Your task to perform on an android device: What's the weather today? Image 0: 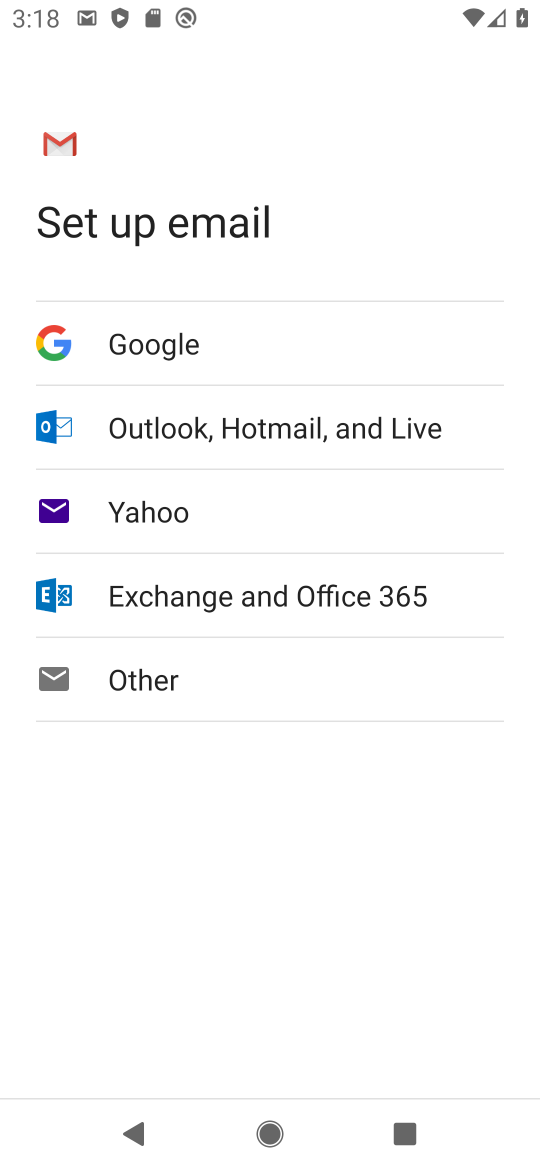
Step 0: press home button
Your task to perform on an android device: What's the weather today? Image 1: 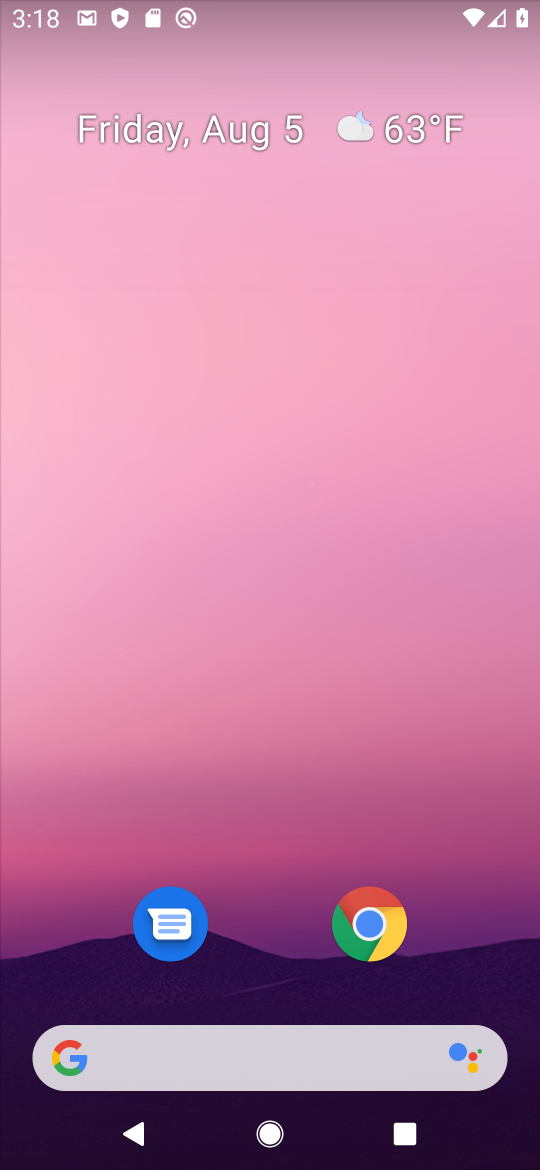
Step 1: drag from (328, 789) to (338, 128)
Your task to perform on an android device: What's the weather today? Image 2: 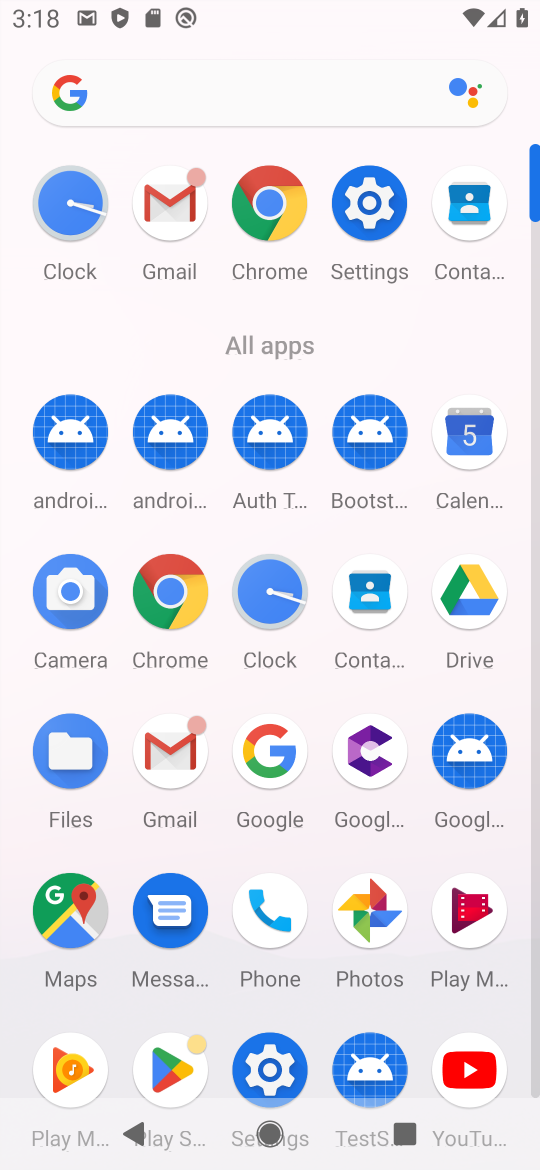
Step 2: click (177, 606)
Your task to perform on an android device: What's the weather today? Image 3: 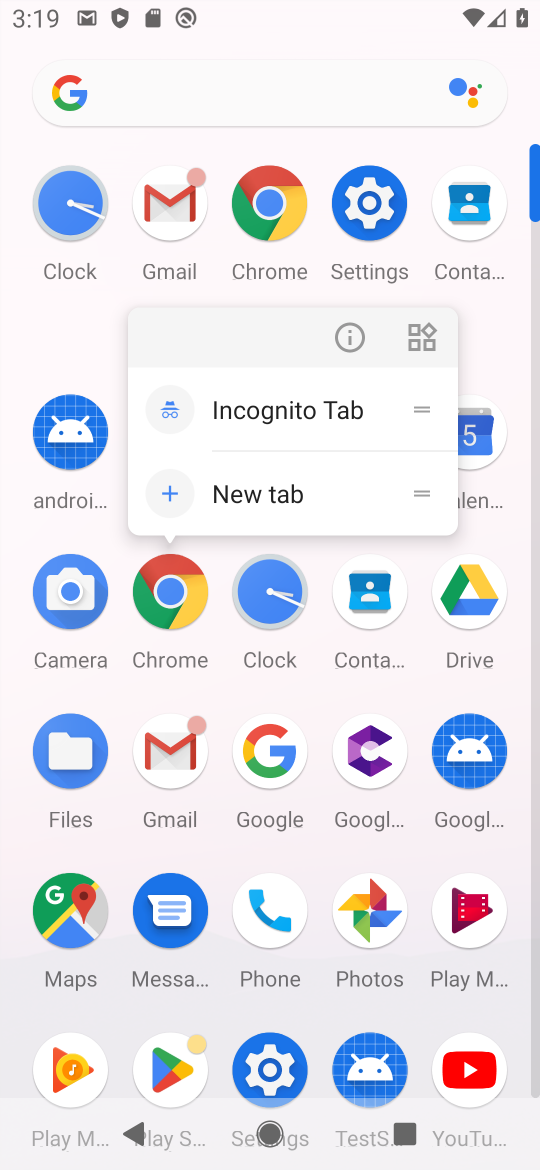
Step 3: click (191, 612)
Your task to perform on an android device: What's the weather today? Image 4: 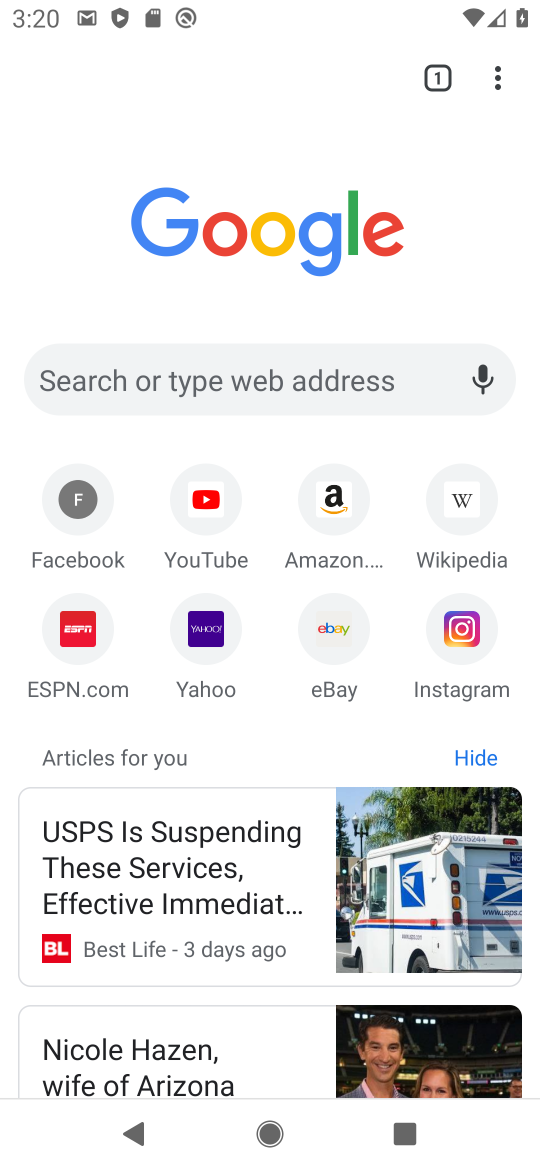
Step 4: click (275, 363)
Your task to perform on an android device: What's the weather today? Image 5: 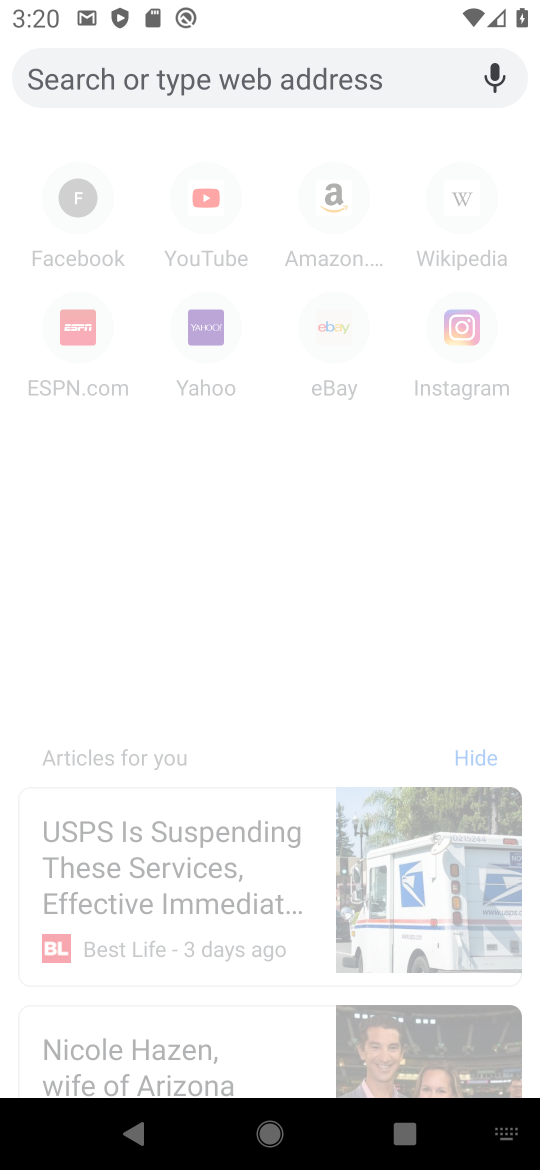
Step 5: type "weather today"
Your task to perform on an android device: What's the weather today? Image 6: 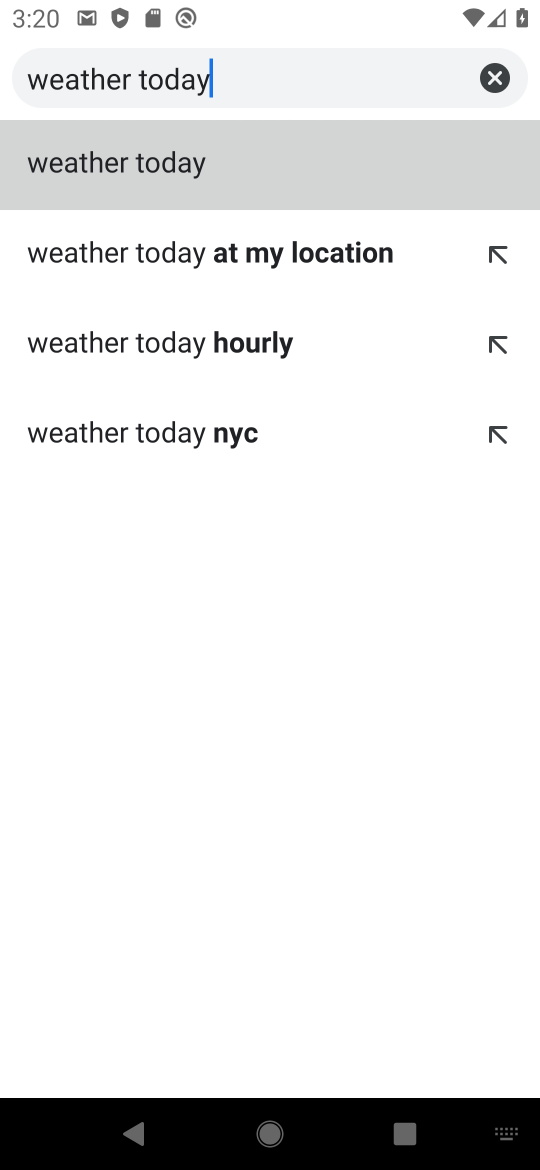
Step 6: type ""
Your task to perform on an android device: What's the weather today? Image 7: 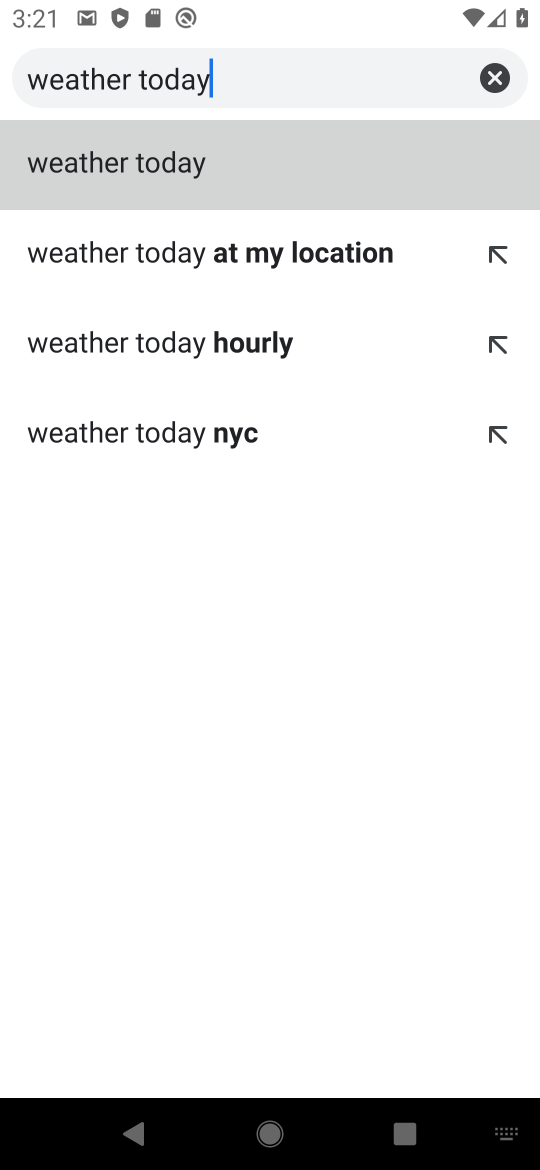
Step 7: click (219, 172)
Your task to perform on an android device: What's the weather today? Image 8: 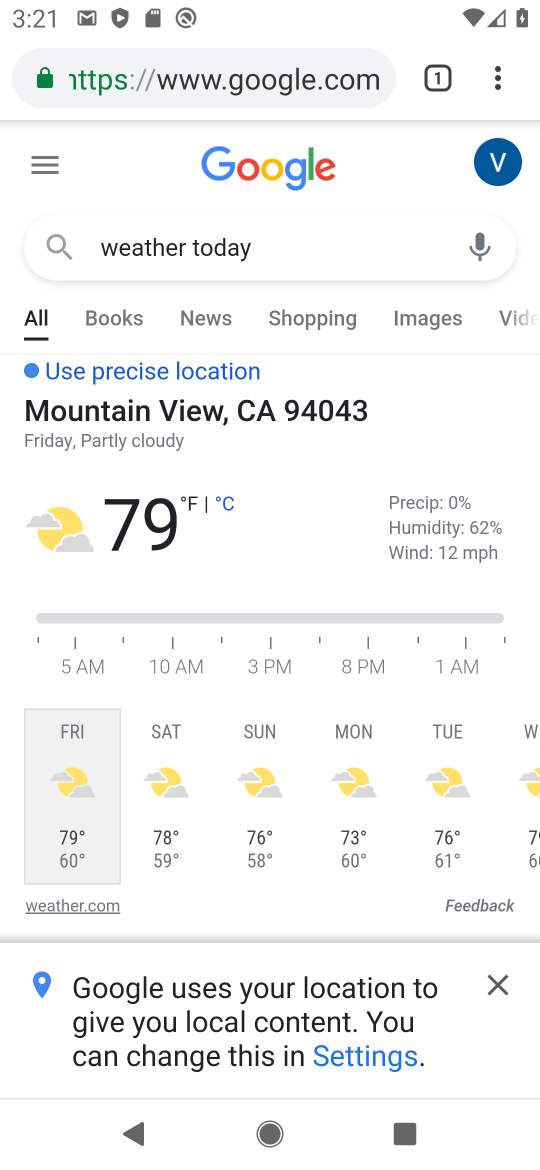
Step 8: task complete